Your task to perform on an android device: allow cookies in the chrome app Image 0: 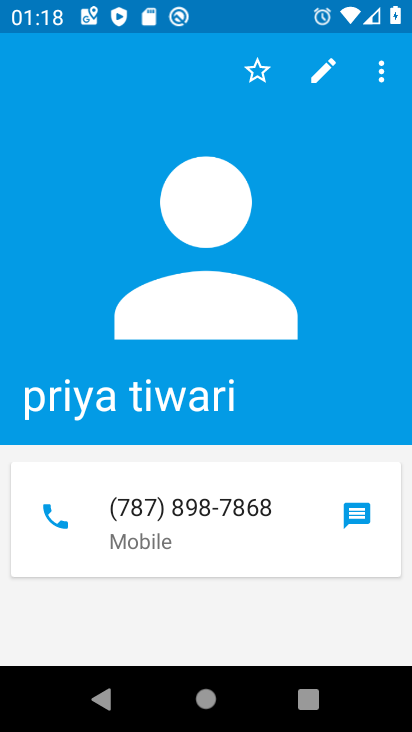
Step 0: press home button
Your task to perform on an android device: allow cookies in the chrome app Image 1: 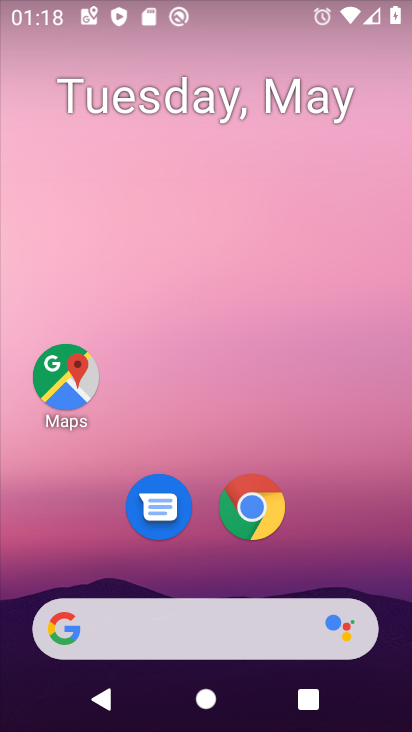
Step 1: click (239, 509)
Your task to perform on an android device: allow cookies in the chrome app Image 2: 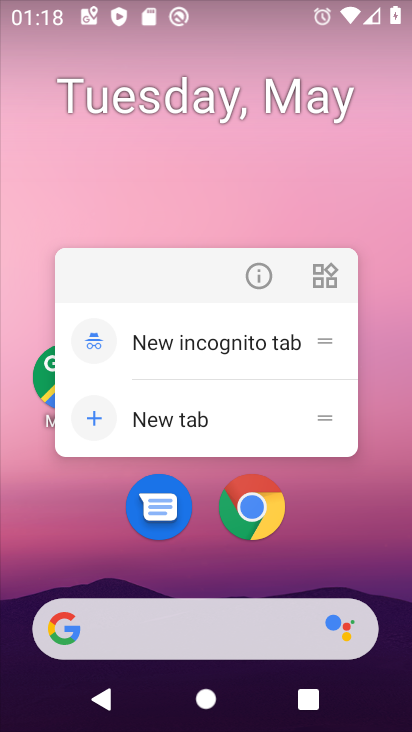
Step 2: click (249, 514)
Your task to perform on an android device: allow cookies in the chrome app Image 3: 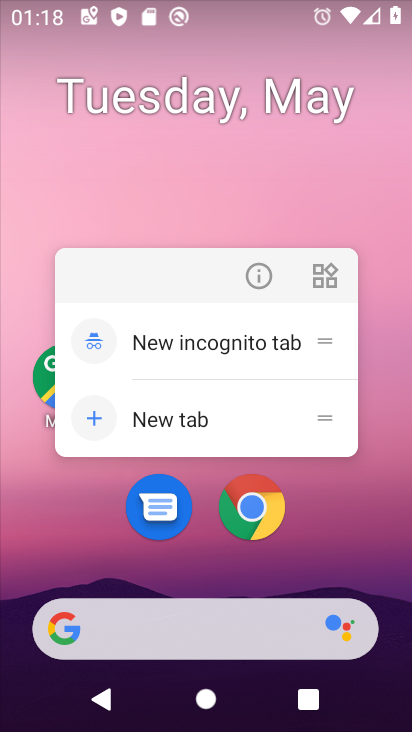
Step 3: click (249, 514)
Your task to perform on an android device: allow cookies in the chrome app Image 4: 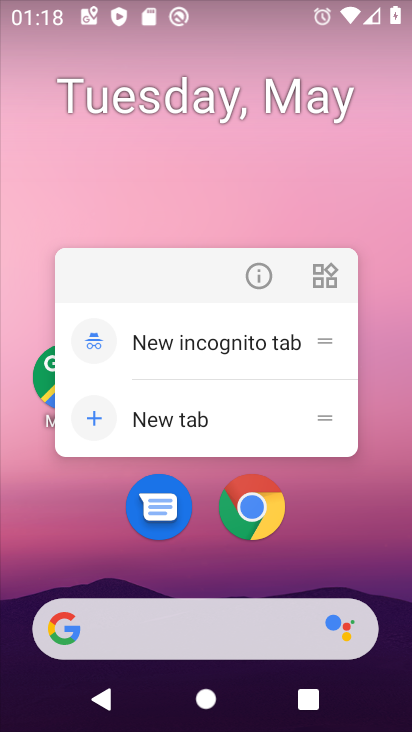
Step 4: click (253, 500)
Your task to perform on an android device: allow cookies in the chrome app Image 5: 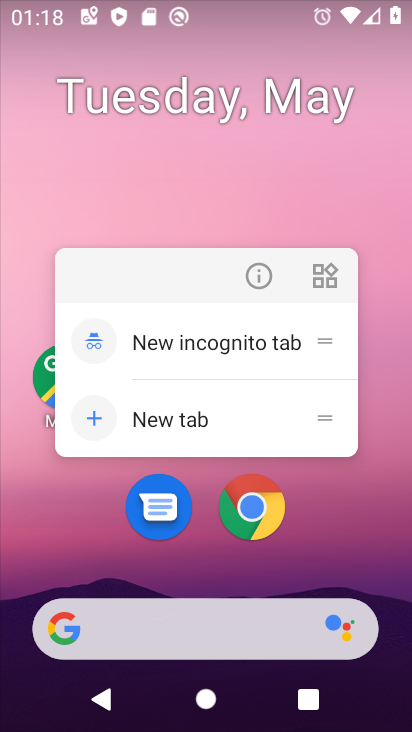
Step 5: click (248, 515)
Your task to perform on an android device: allow cookies in the chrome app Image 6: 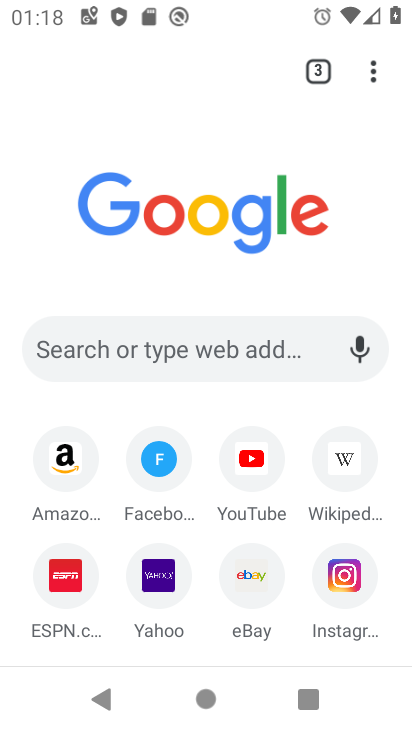
Step 6: click (373, 68)
Your task to perform on an android device: allow cookies in the chrome app Image 7: 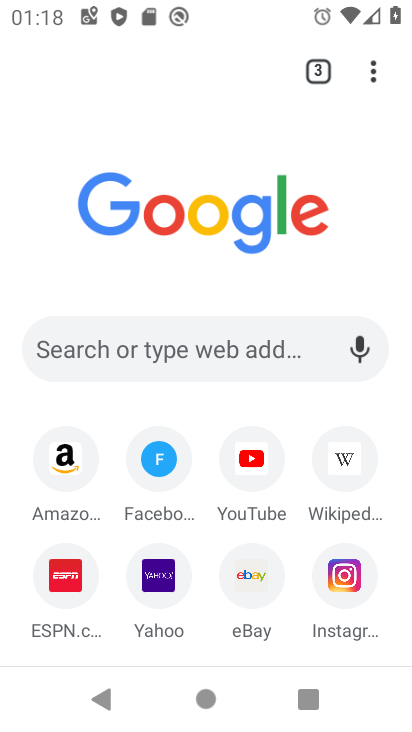
Step 7: click (373, 76)
Your task to perform on an android device: allow cookies in the chrome app Image 8: 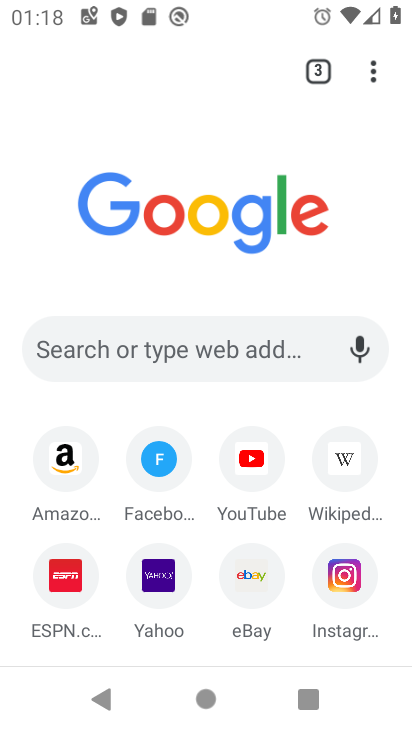
Step 8: click (373, 76)
Your task to perform on an android device: allow cookies in the chrome app Image 9: 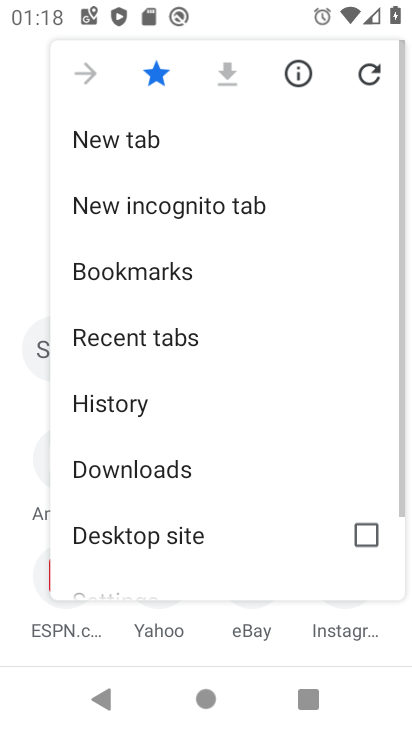
Step 9: drag from (141, 540) to (141, 99)
Your task to perform on an android device: allow cookies in the chrome app Image 10: 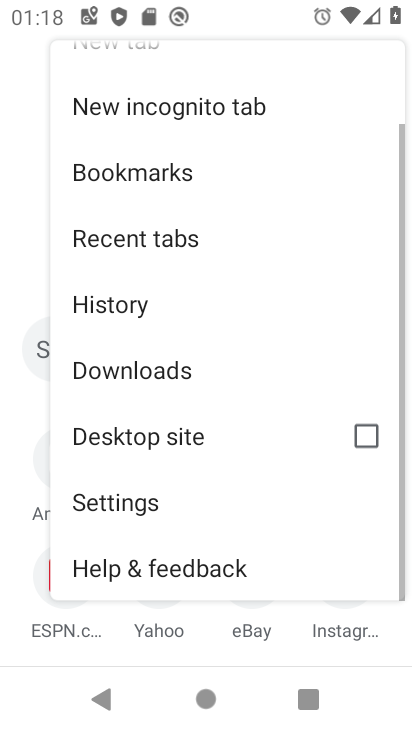
Step 10: click (93, 483)
Your task to perform on an android device: allow cookies in the chrome app Image 11: 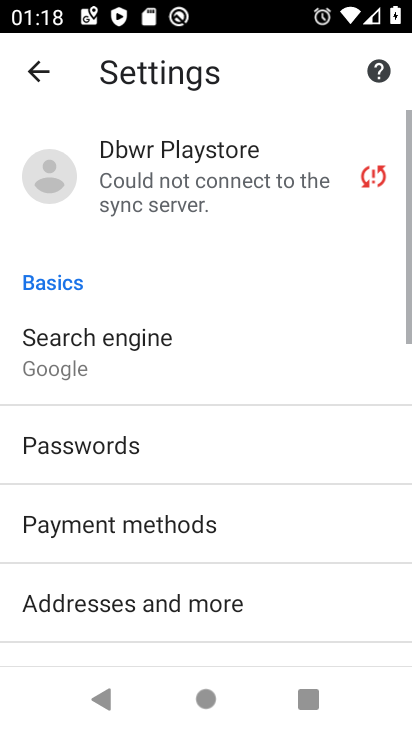
Step 11: drag from (126, 423) to (132, 84)
Your task to perform on an android device: allow cookies in the chrome app Image 12: 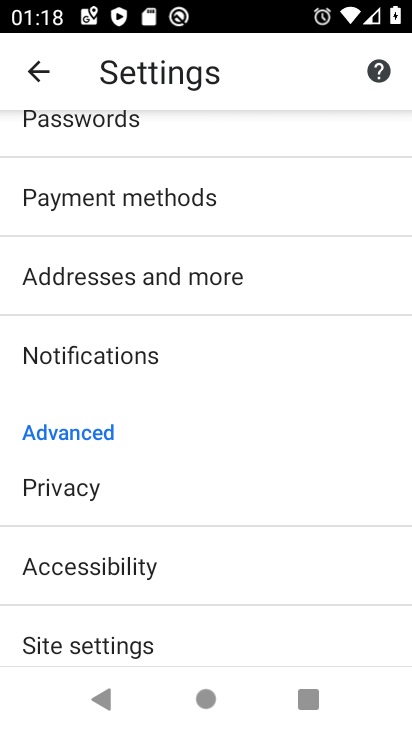
Step 12: drag from (132, 606) to (134, 324)
Your task to perform on an android device: allow cookies in the chrome app Image 13: 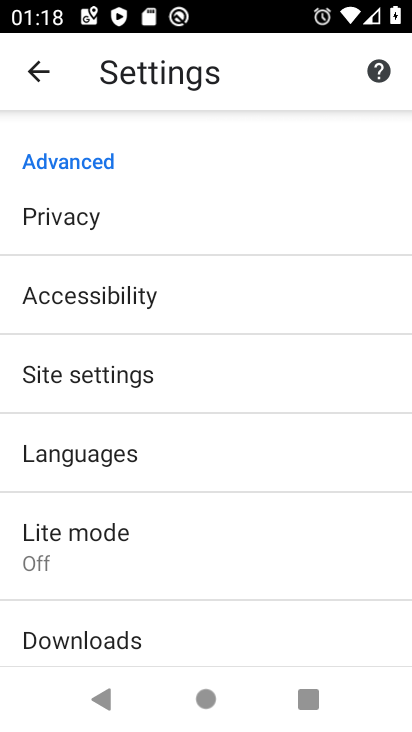
Step 13: drag from (99, 598) to (79, 256)
Your task to perform on an android device: allow cookies in the chrome app Image 14: 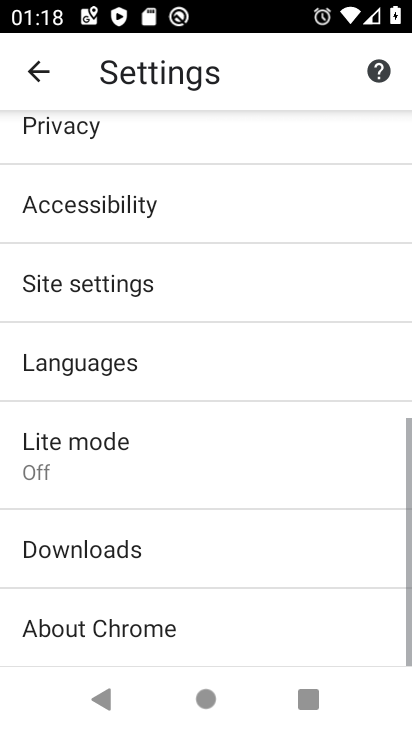
Step 14: click (103, 299)
Your task to perform on an android device: allow cookies in the chrome app Image 15: 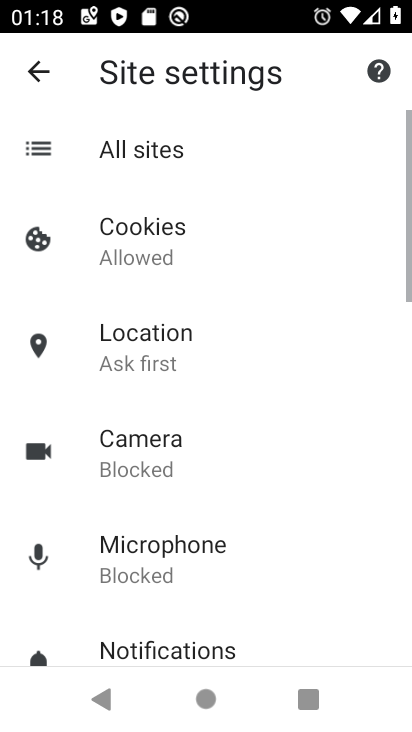
Step 15: click (102, 238)
Your task to perform on an android device: allow cookies in the chrome app Image 16: 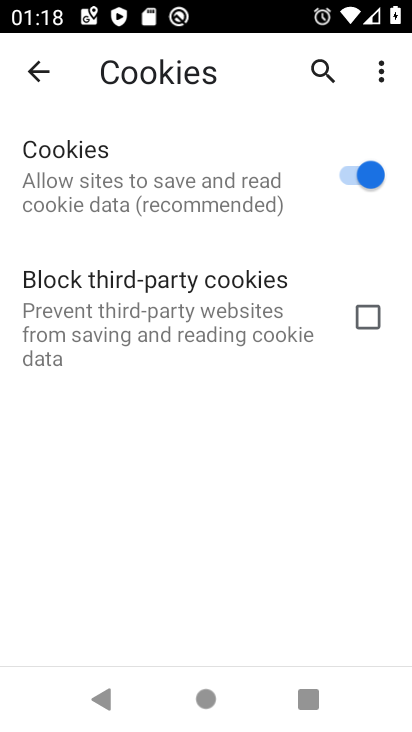
Step 16: task complete